Your task to perform on an android device: Open Youtube and go to the subscriptions tab Image 0: 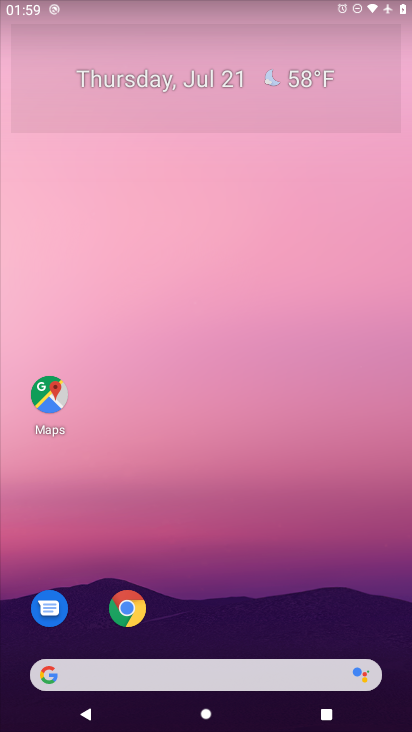
Step 0: drag from (248, 633) to (283, 17)
Your task to perform on an android device: Open Youtube and go to the subscriptions tab Image 1: 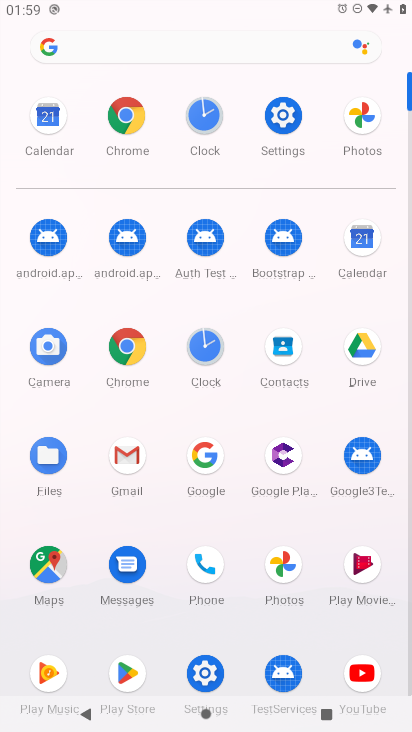
Step 1: click (362, 667)
Your task to perform on an android device: Open Youtube and go to the subscriptions tab Image 2: 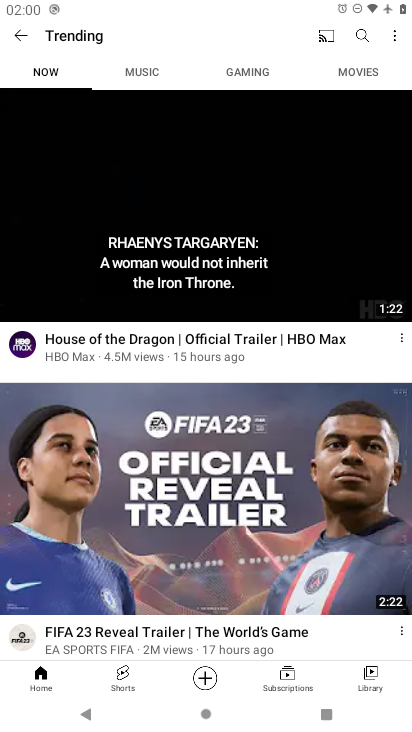
Step 2: click (282, 675)
Your task to perform on an android device: Open Youtube and go to the subscriptions tab Image 3: 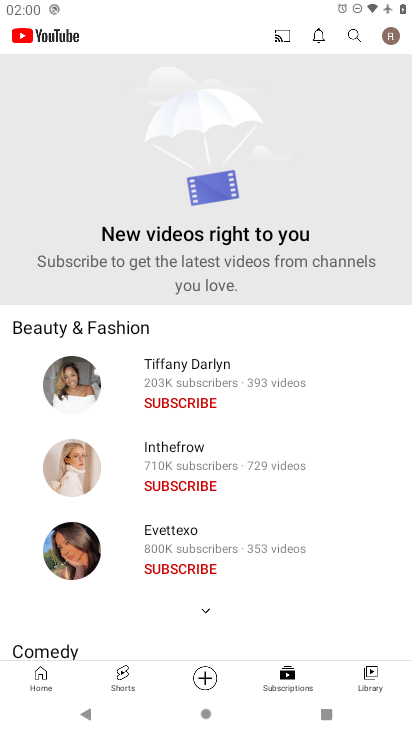
Step 3: task complete